Your task to perform on an android device: Go to Google maps Image 0: 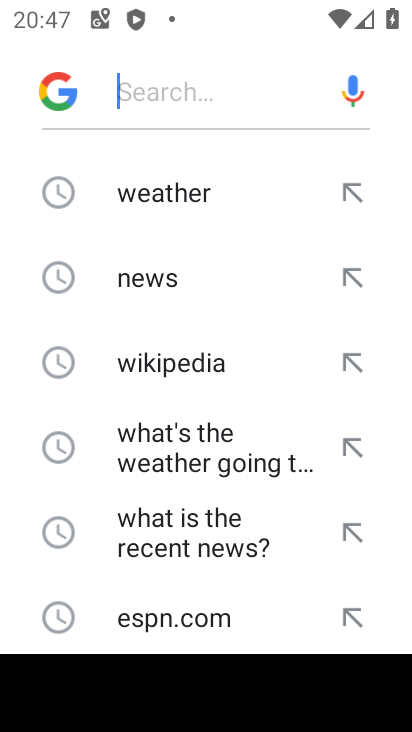
Step 0: press home button
Your task to perform on an android device: Go to Google maps Image 1: 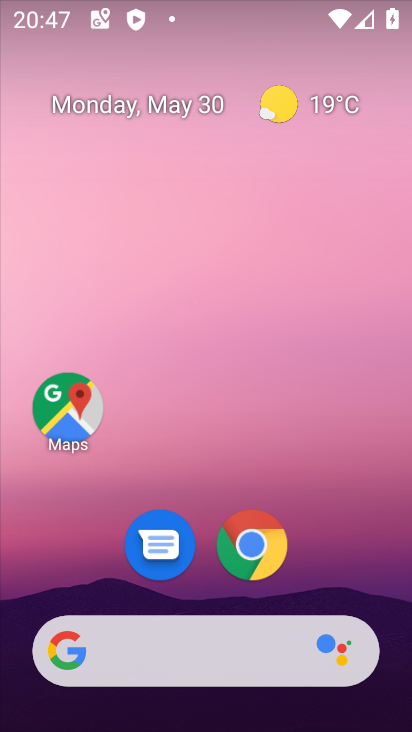
Step 1: click (75, 409)
Your task to perform on an android device: Go to Google maps Image 2: 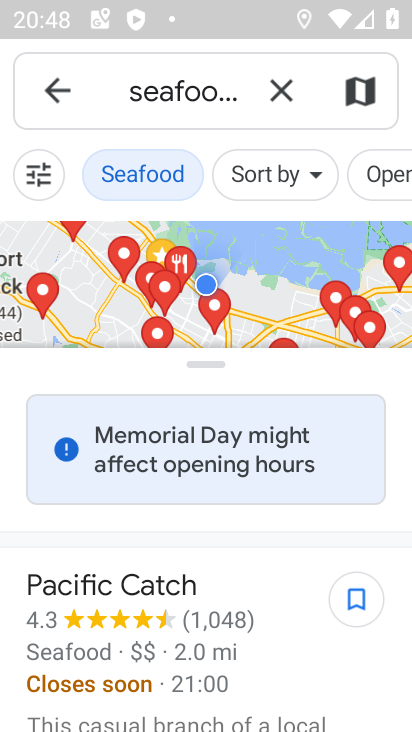
Step 2: task complete